Your task to perform on an android device: Add sony triple a to the cart on bestbuy, then select checkout. Image 0: 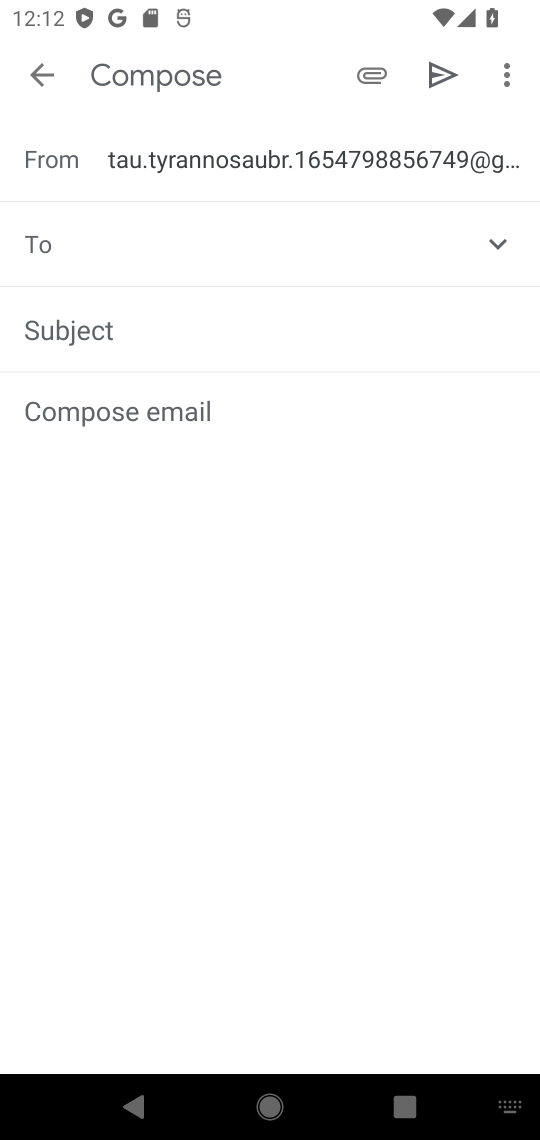
Step 0: press home button
Your task to perform on an android device: Add sony triple a to the cart on bestbuy, then select checkout. Image 1: 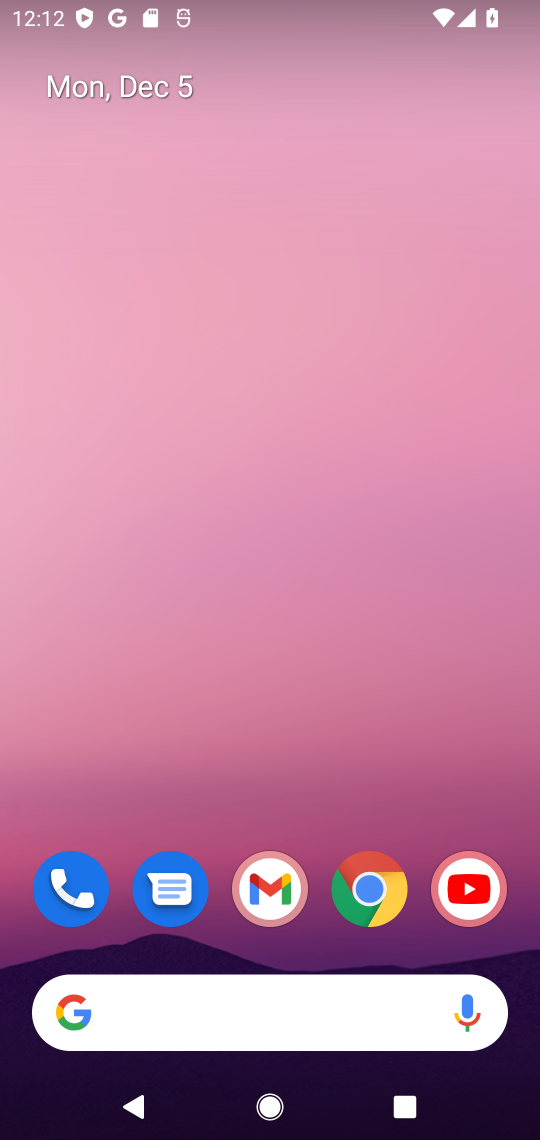
Step 1: click (386, 890)
Your task to perform on an android device: Add sony triple a to the cart on bestbuy, then select checkout. Image 2: 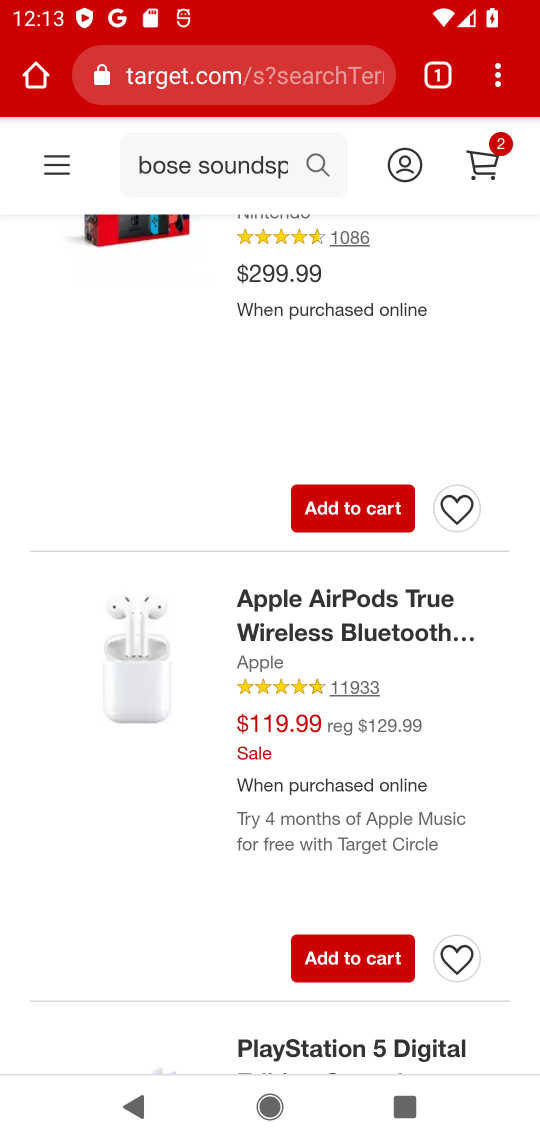
Step 2: click (292, 74)
Your task to perform on an android device: Add sony triple a to the cart on bestbuy, then select checkout. Image 3: 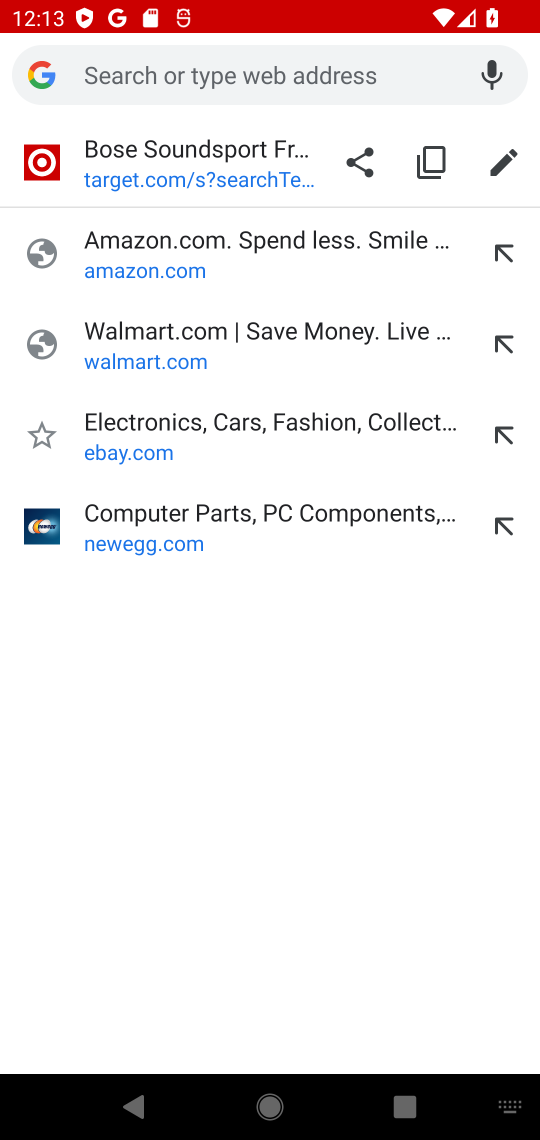
Step 3: press enter
Your task to perform on an android device: Add sony triple a to the cart on bestbuy, then select checkout. Image 4: 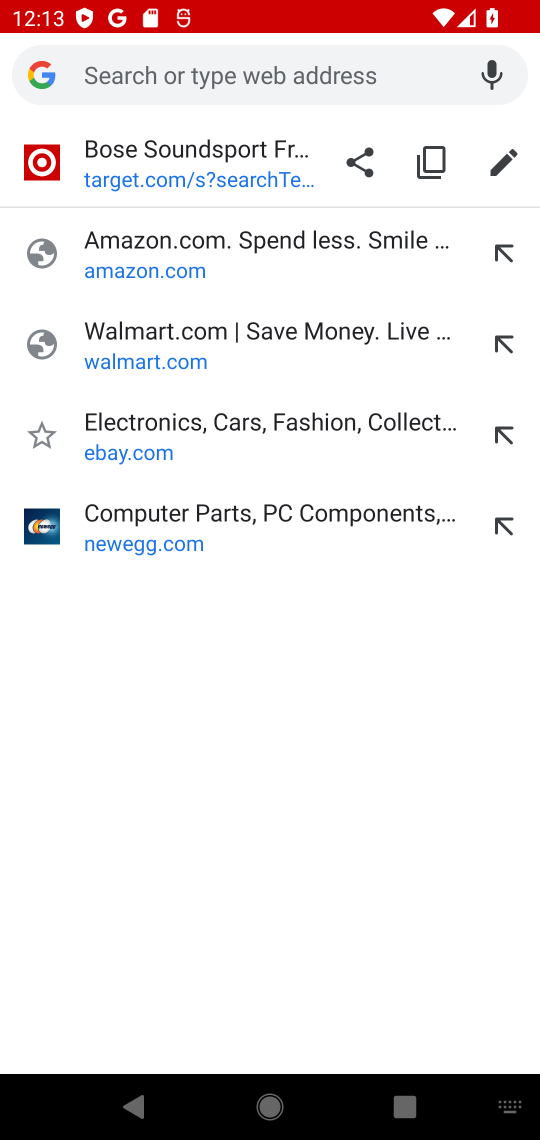
Step 4: type "bestbuy"
Your task to perform on an android device: Add sony triple a to the cart on bestbuy, then select checkout. Image 5: 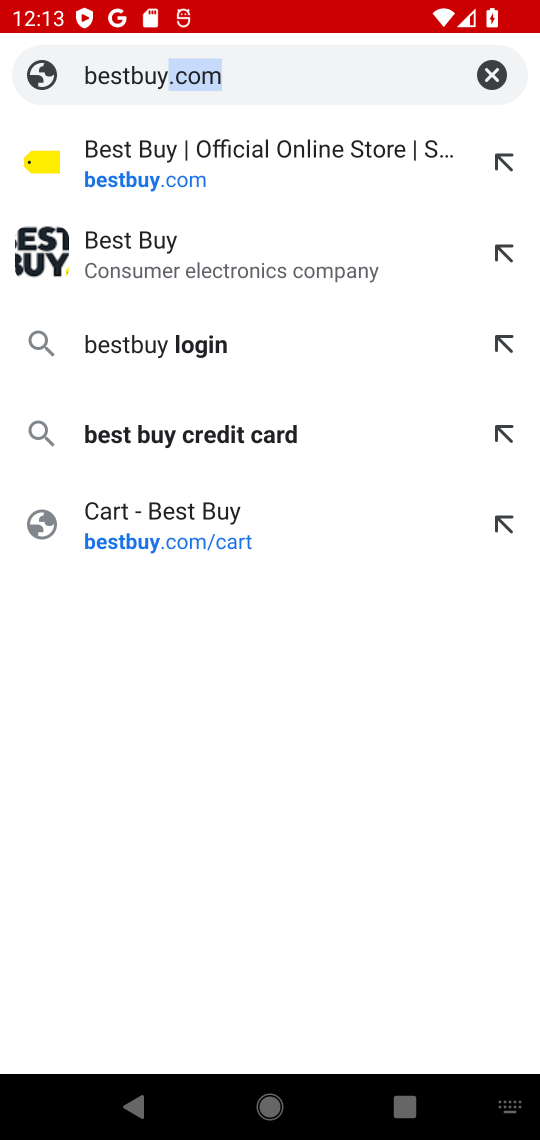
Step 5: click (397, 75)
Your task to perform on an android device: Add sony triple a to the cart on bestbuy, then select checkout. Image 6: 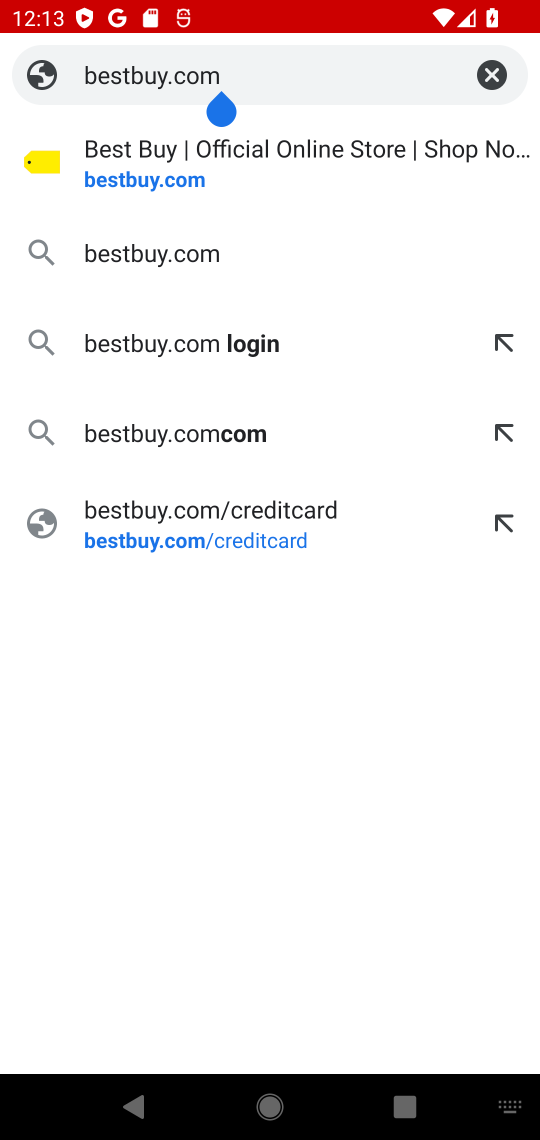
Step 6: click (202, 247)
Your task to perform on an android device: Add sony triple a to the cart on bestbuy, then select checkout. Image 7: 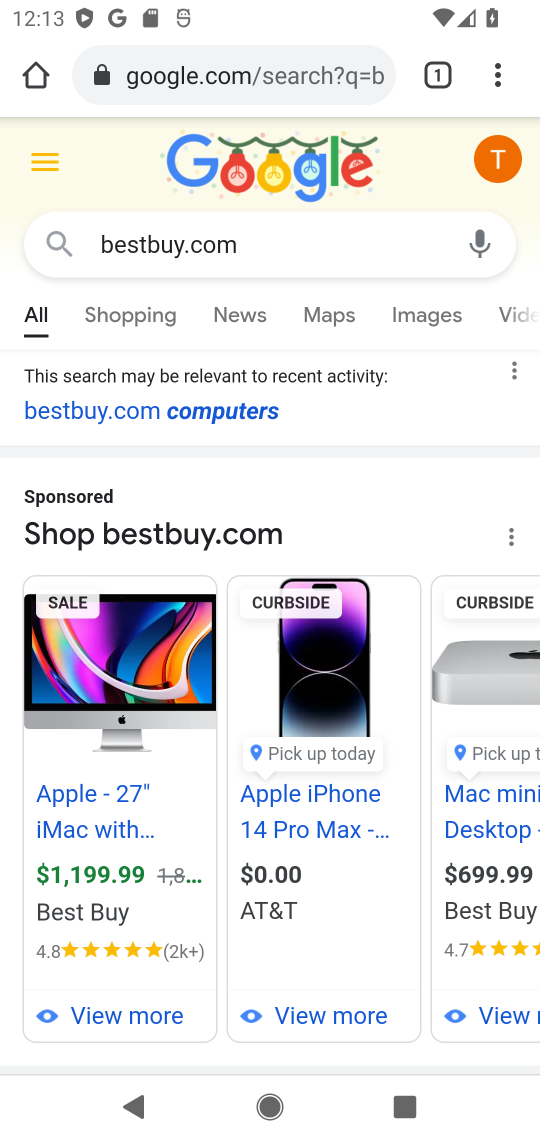
Step 7: drag from (321, 527) to (343, 226)
Your task to perform on an android device: Add sony triple a to the cart on bestbuy, then select checkout. Image 8: 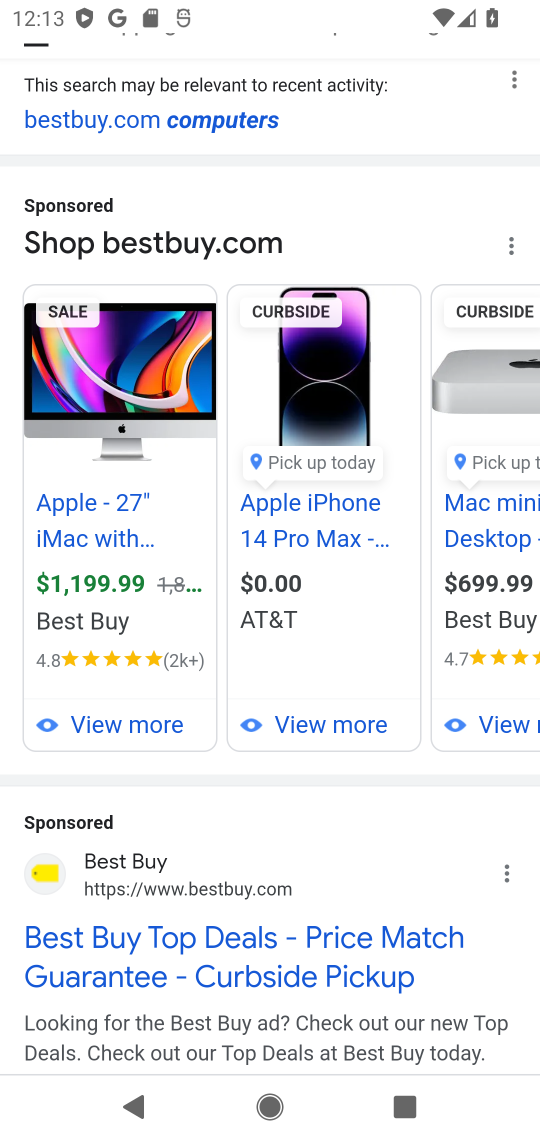
Step 8: click (212, 895)
Your task to perform on an android device: Add sony triple a to the cart on bestbuy, then select checkout. Image 9: 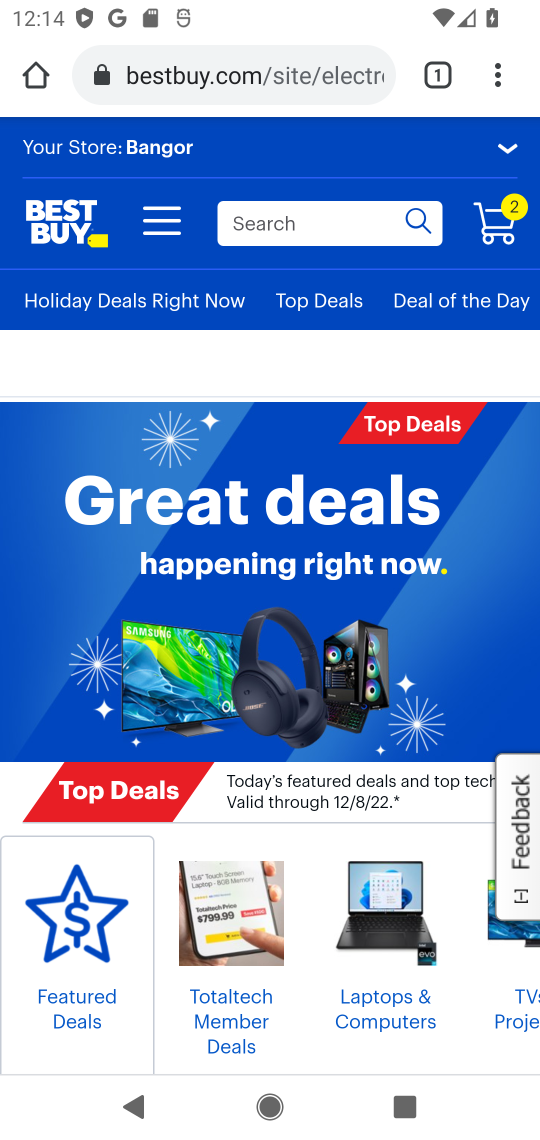
Step 9: click (299, 228)
Your task to perform on an android device: Add sony triple a to the cart on bestbuy, then select checkout. Image 10: 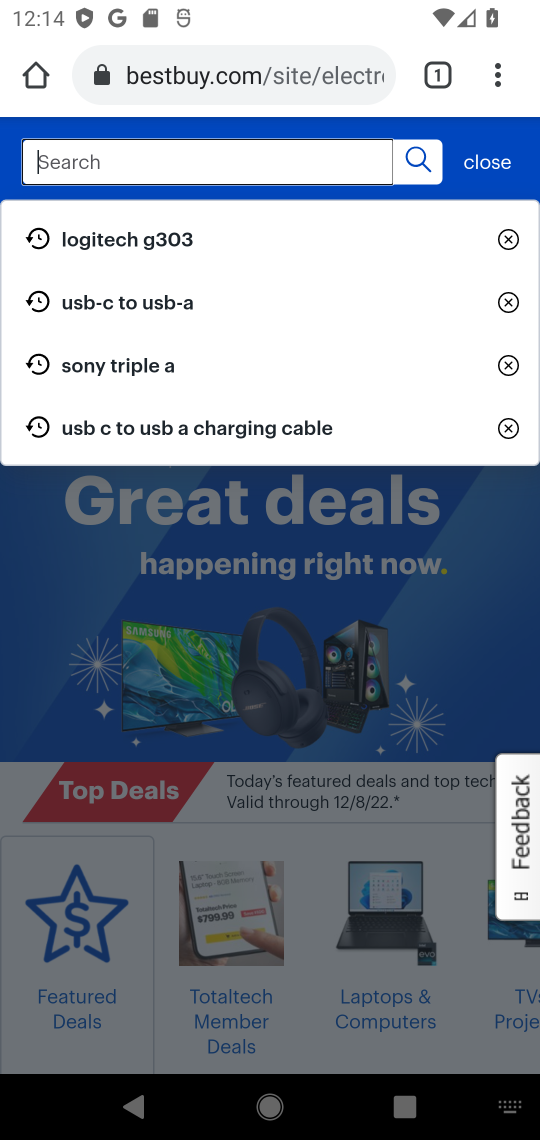
Step 10: type "sony triple a"
Your task to perform on an android device: Add sony triple a to the cart on bestbuy, then select checkout. Image 11: 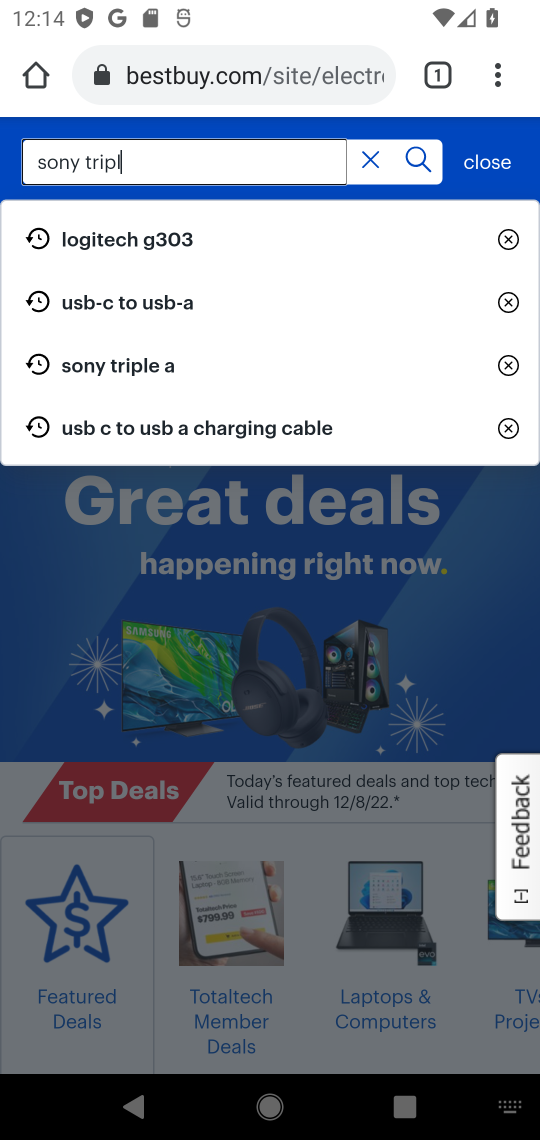
Step 11: press enter
Your task to perform on an android device: Add sony triple a to the cart on bestbuy, then select checkout. Image 12: 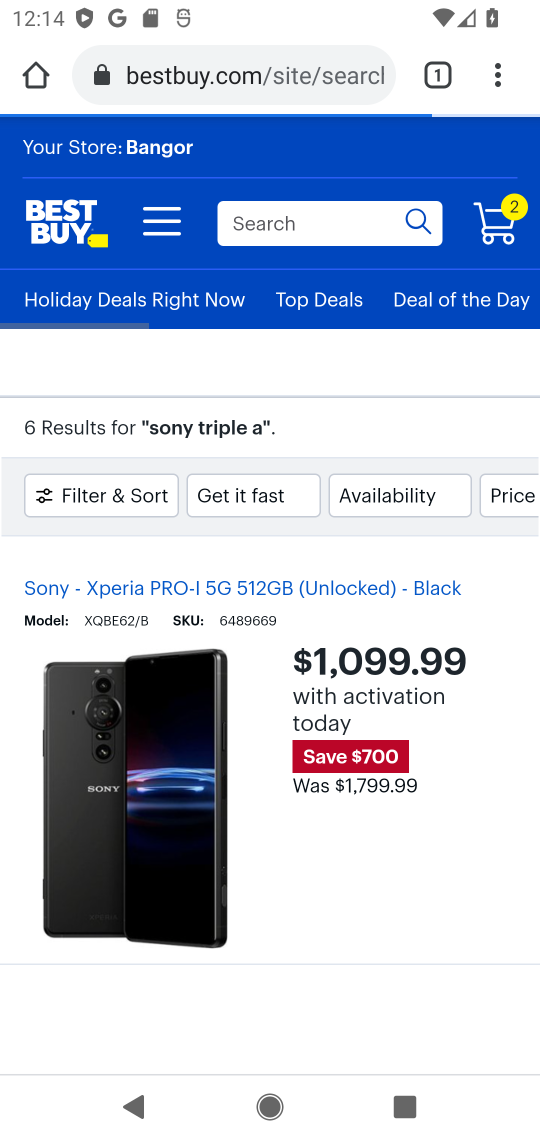
Step 12: click (422, 160)
Your task to perform on an android device: Add sony triple a to the cart on bestbuy, then select checkout. Image 13: 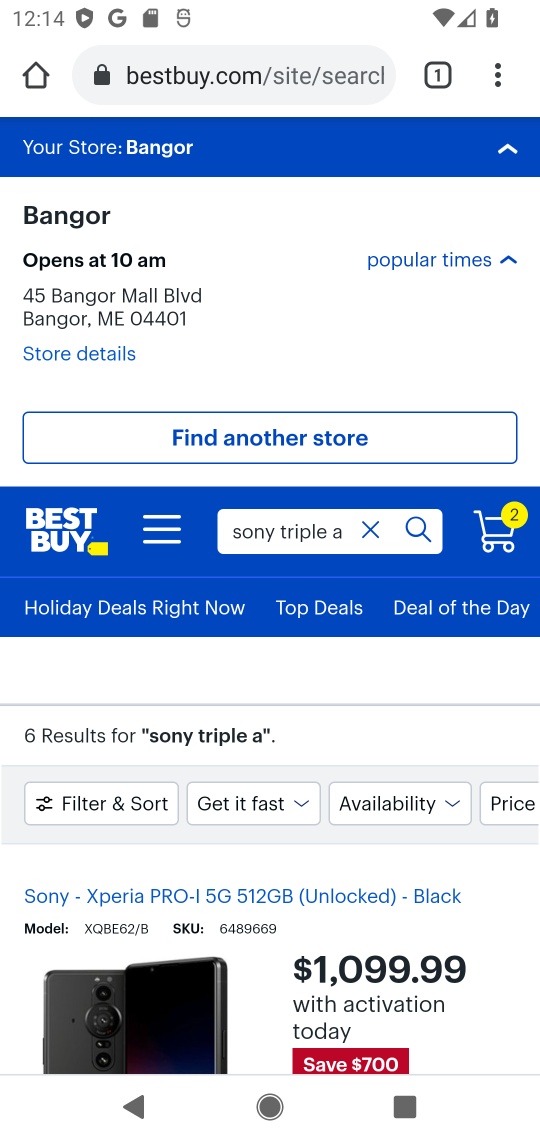
Step 13: task complete